Your task to perform on an android device: turn off picture-in-picture Image 0: 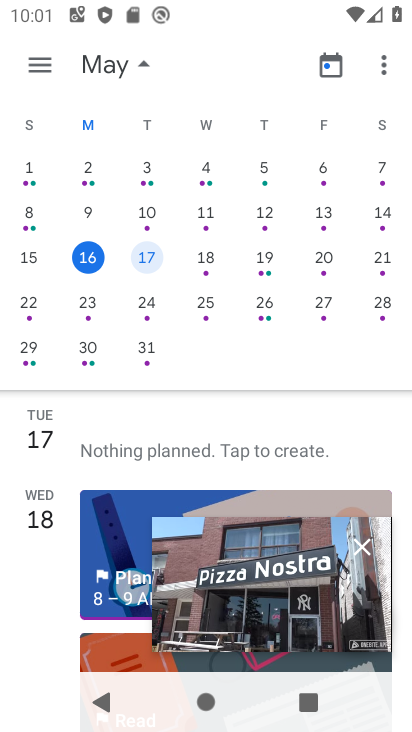
Step 0: click (360, 547)
Your task to perform on an android device: turn off picture-in-picture Image 1: 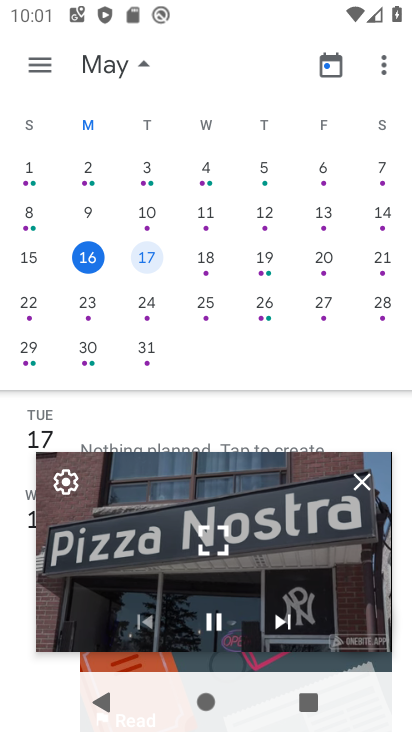
Step 1: click (360, 486)
Your task to perform on an android device: turn off picture-in-picture Image 2: 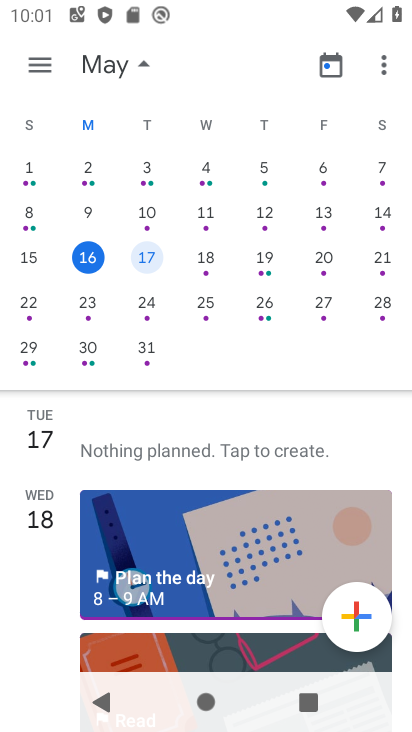
Step 2: press home button
Your task to perform on an android device: turn off picture-in-picture Image 3: 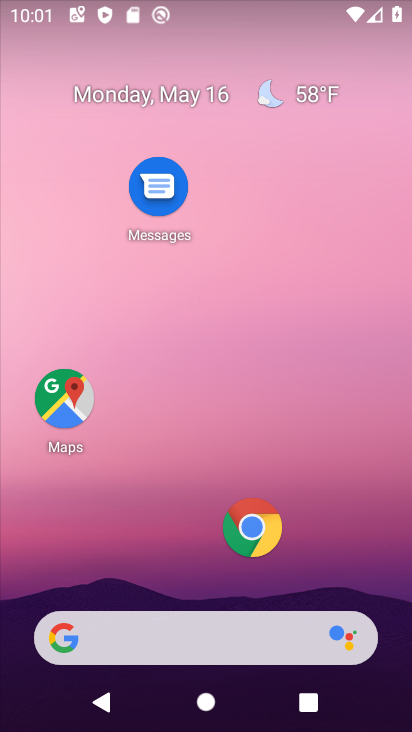
Step 3: click (261, 526)
Your task to perform on an android device: turn off picture-in-picture Image 4: 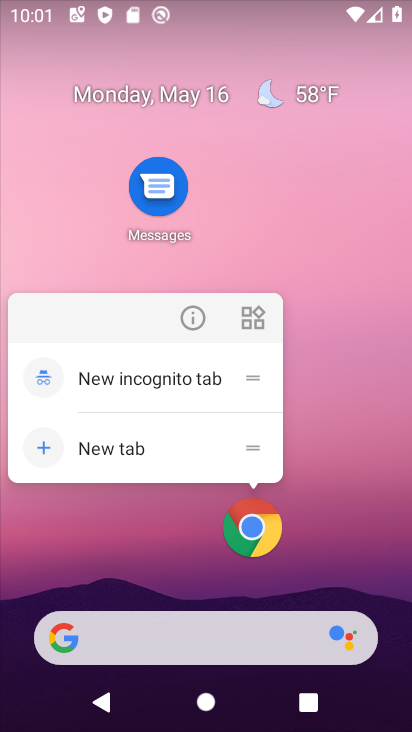
Step 4: click (190, 320)
Your task to perform on an android device: turn off picture-in-picture Image 5: 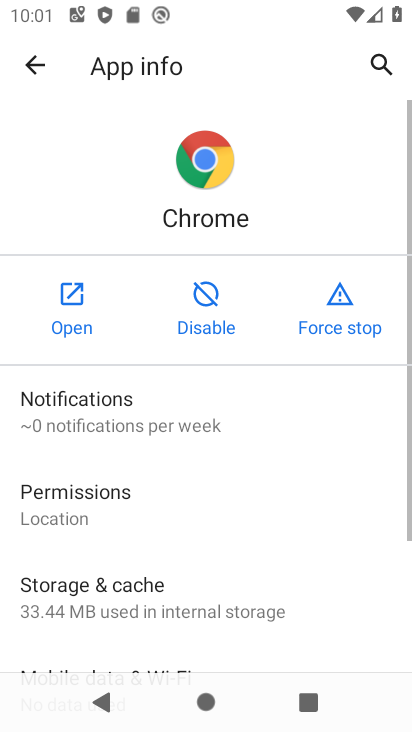
Step 5: drag from (135, 584) to (151, 199)
Your task to perform on an android device: turn off picture-in-picture Image 6: 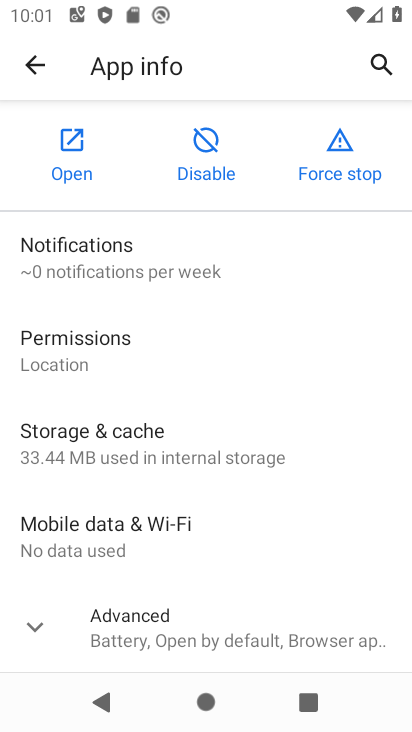
Step 6: click (140, 624)
Your task to perform on an android device: turn off picture-in-picture Image 7: 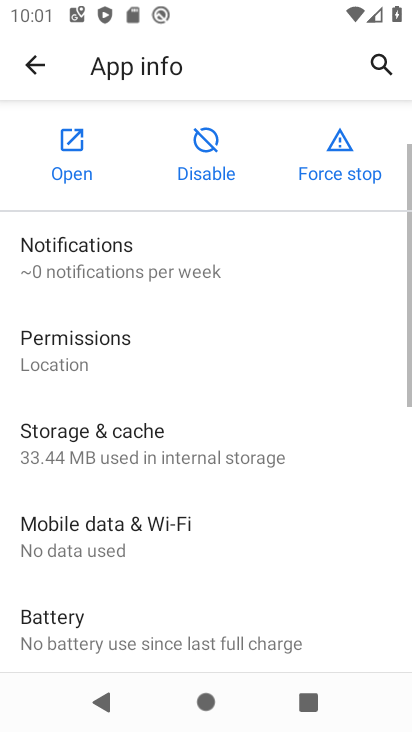
Step 7: drag from (206, 589) to (205, 86)
Your task to perform on an android device: turn off picture-in-picture Image 8: 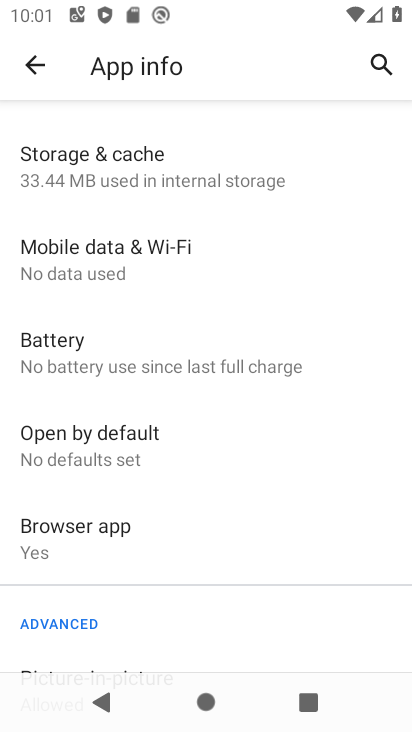
Step 8: drag from (188, 601) to (193, 116)
Your task to perform on an android device: turn off picture-in-picture Image 9: 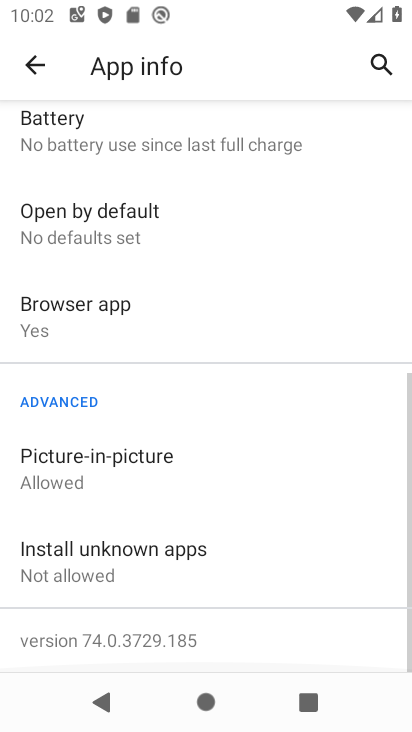
Step 9: click (82, 473)
Your task to perform on an android device: turn off picture-in-picture Image 10: 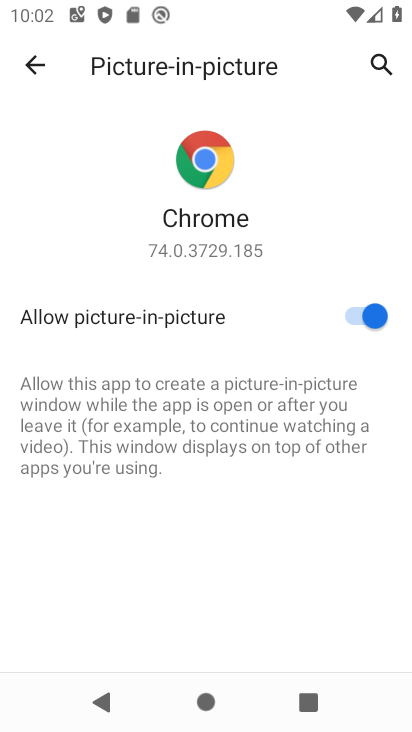
Step 10: click (370, 313)
Your task to perform on an android device: turn off picture-in-picture Image 11: 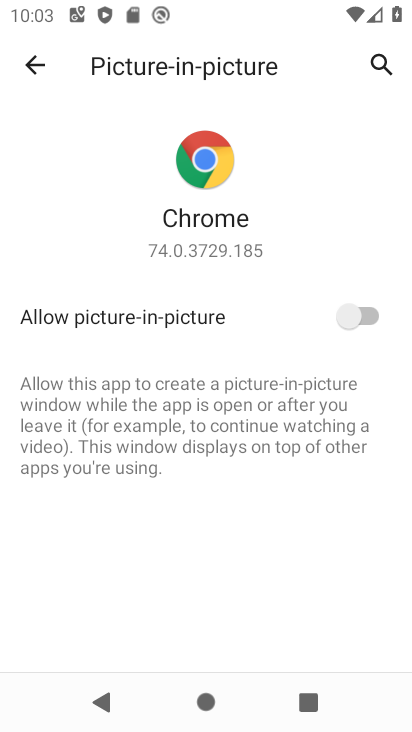
Step 11: task complete